Your task to perform on an android device: Open the stopwatch Image 0: 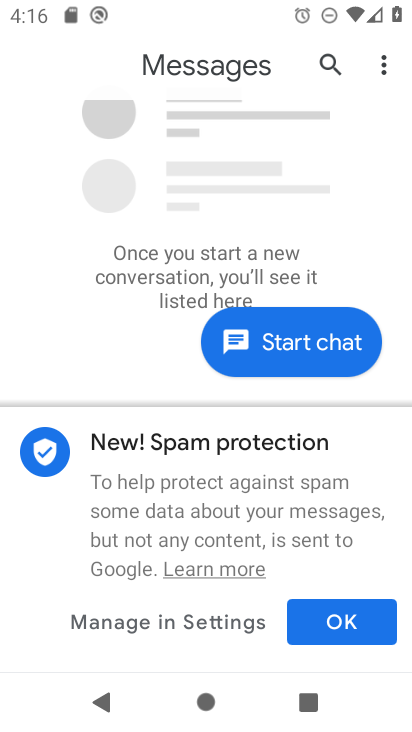
Step 0: press home button
Your task to perform on an android device: Open the stopwatch Image 1: 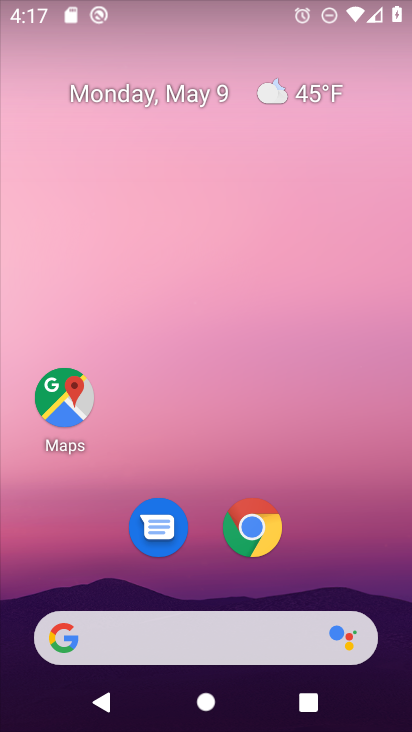
Step 1: drag from (367, 593) to (348, 14)
Your task to perform on an android device: Open the stopwatch Image 2: 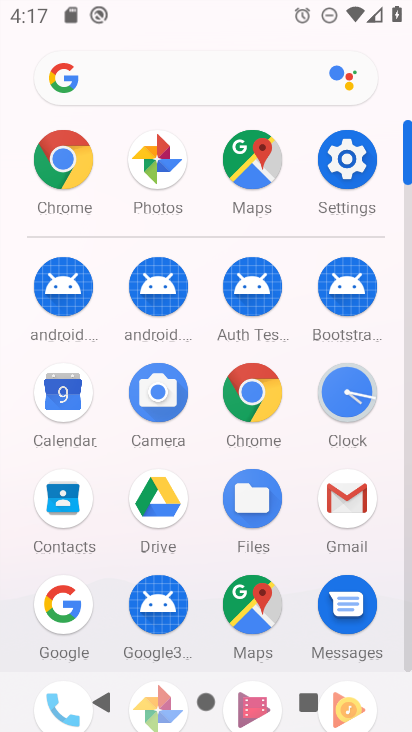
Step 2: click (339, 385)
Your task to perform on an android device: Open the stopwatch Image 3: 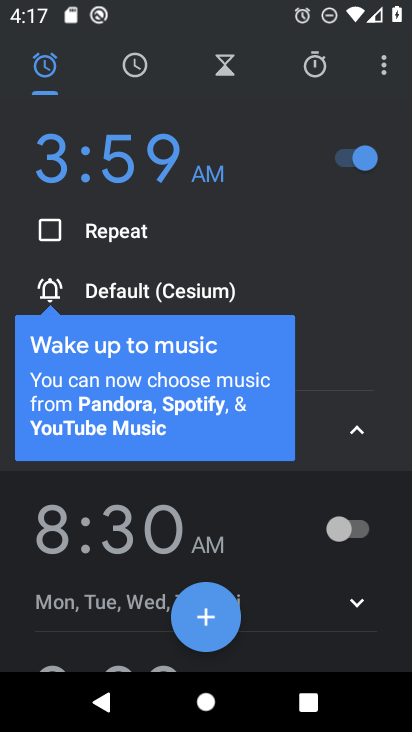
Step 3: click (323, 83)
Your task to perform on an android device: Open the stopwatch Image 4: 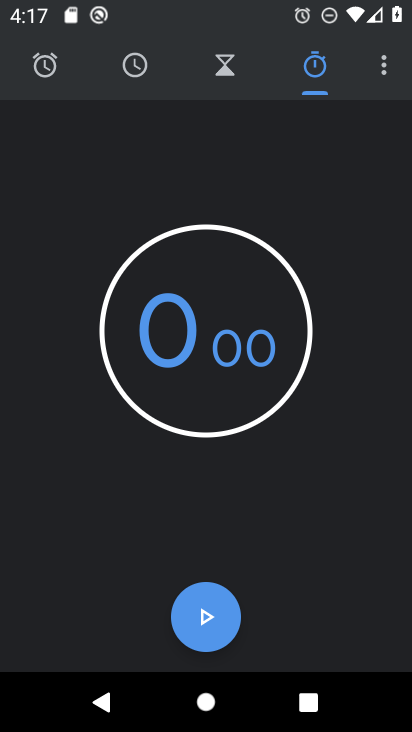
Step 4: click (198, 607)
Your task to perform on an android device: Open the stopwatch Image 5: 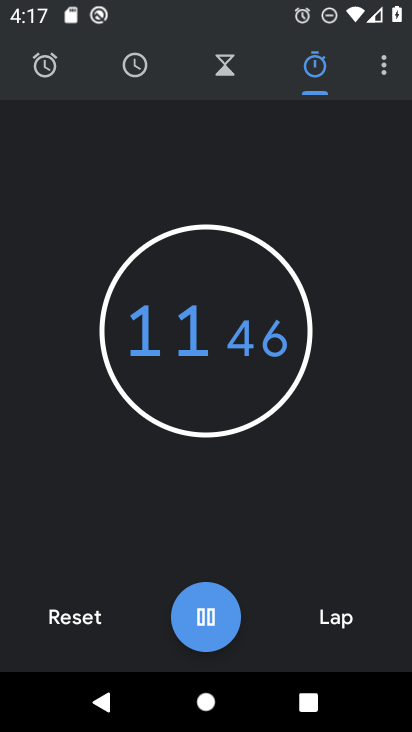
Step 5: task complete